Your task to perform on an android device: Open Google Chrome and open the bookmarks view Image 0: 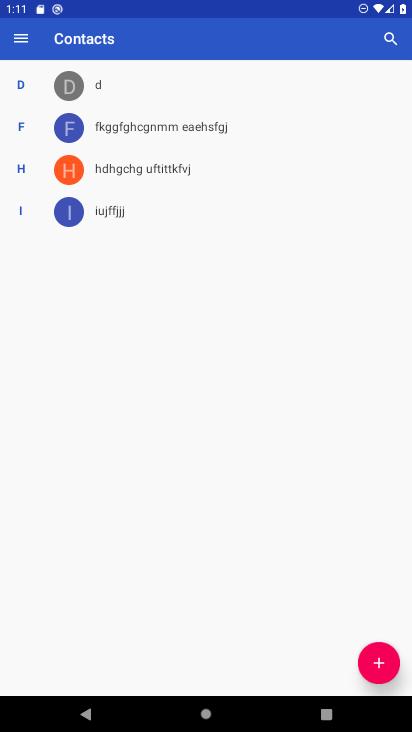
Step 0: press home button
Your task to perform on an android device: Open Google Chrome and open the bookmarks view Image 1: 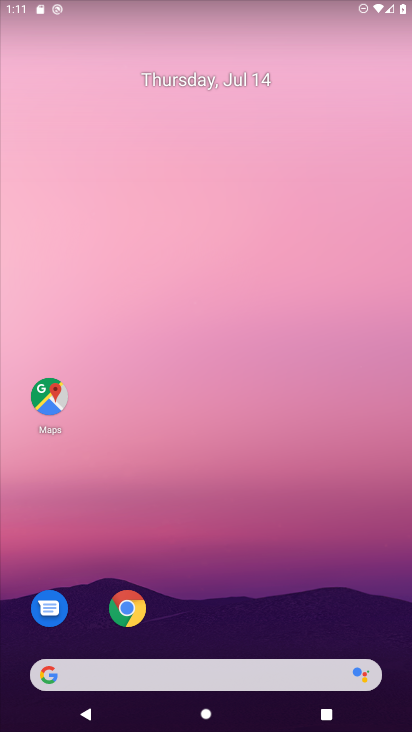
Step 1: drag from (241, 721) to (251, 174)
Your task to perform on an android device: Open Google Chrome and open the bookmarks view Image 2: 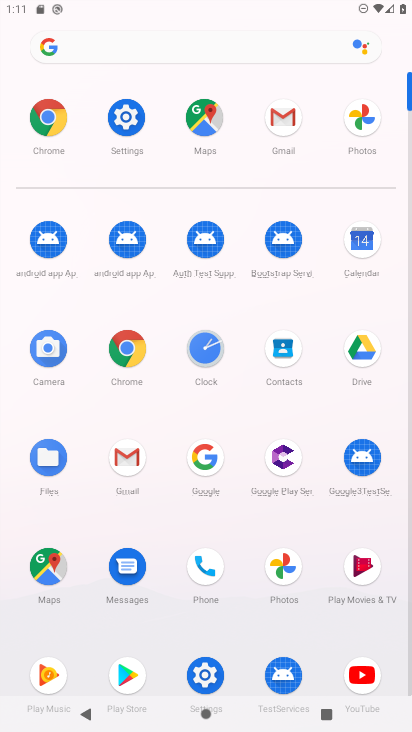
Step 2: click (126, 344)
Your task to perform on an android device: Open Google Chrome and open the bookmarks view Image 3: 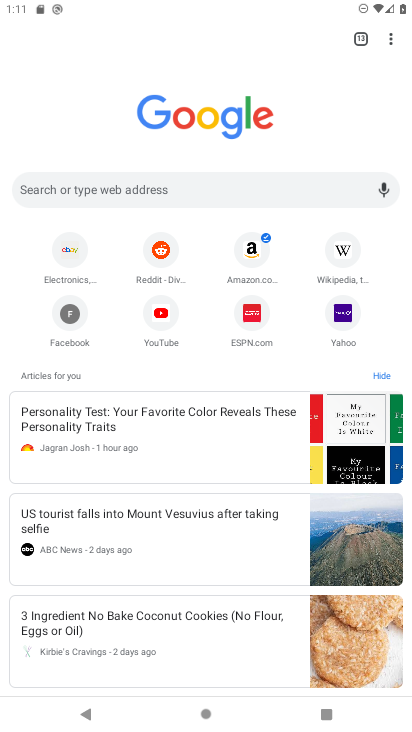
Step 3: click (388, 36)
Your task to perform on an android device: Open Google Chrome and open the bookmarks view Image 4: 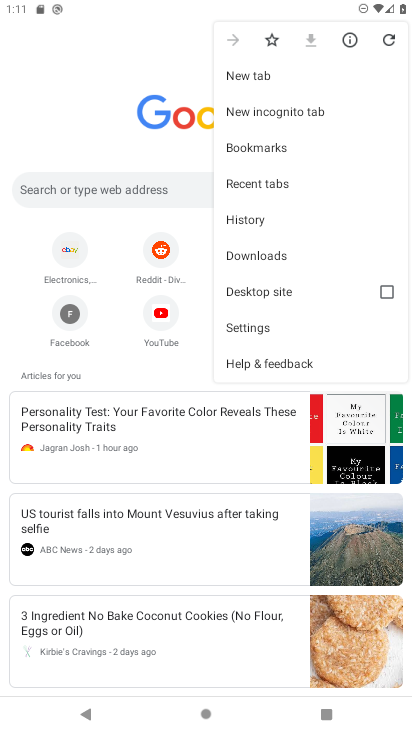
Step 4: click (264, 141)
Your task to perform on an android device: Open Google Chrome and open the bookmarks view Image 5: 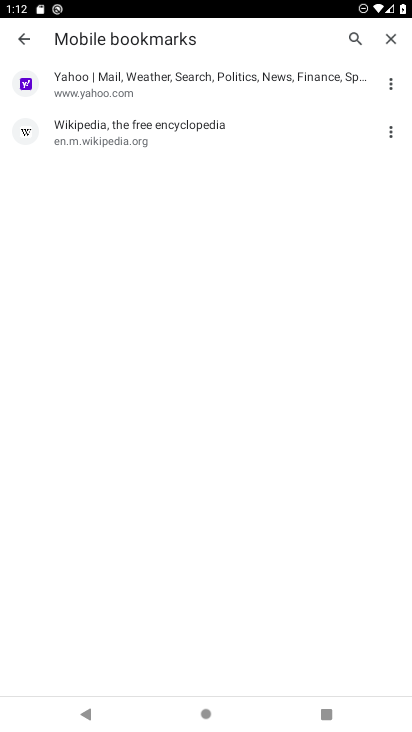
Step 5: task complete